Your task to perform on an android device: delete location history Image 0: 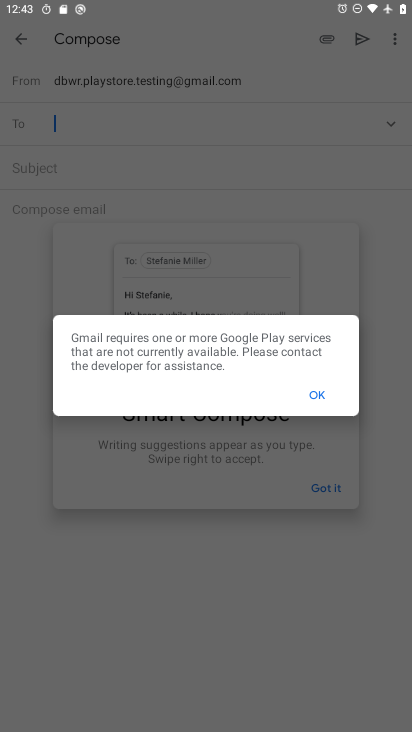
Step 0: press home button
Your task to perform on an android device: delete location history Image 1: 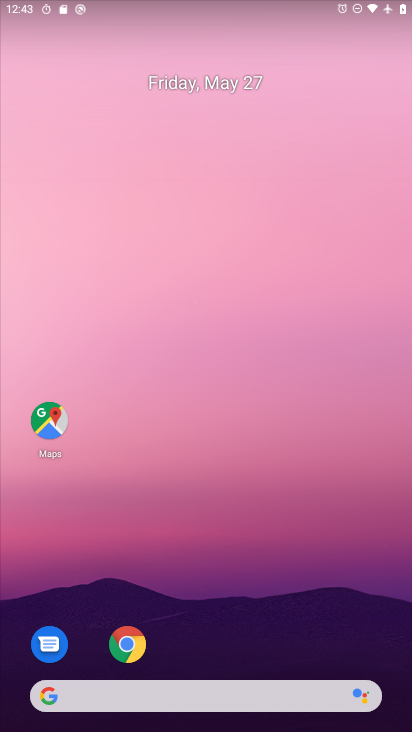
Step 1: drag from (208, 624) to (189, 207)
Your task to perform on an android device: delete location history Image 2: 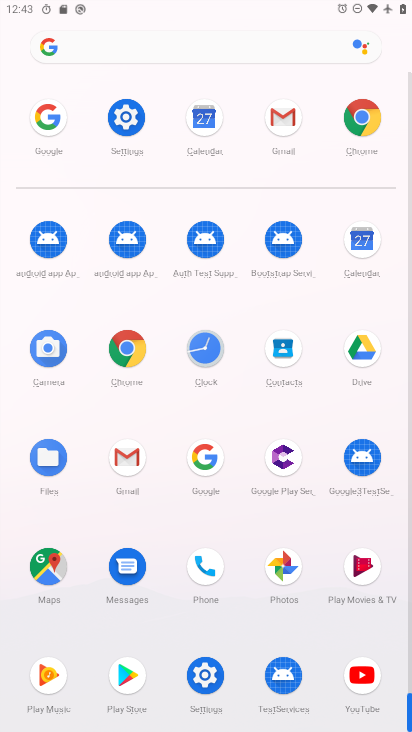
Step 2: drag from (244, 559) to (237, 431)
Your task to perform on an android device: delete location history Image 3: 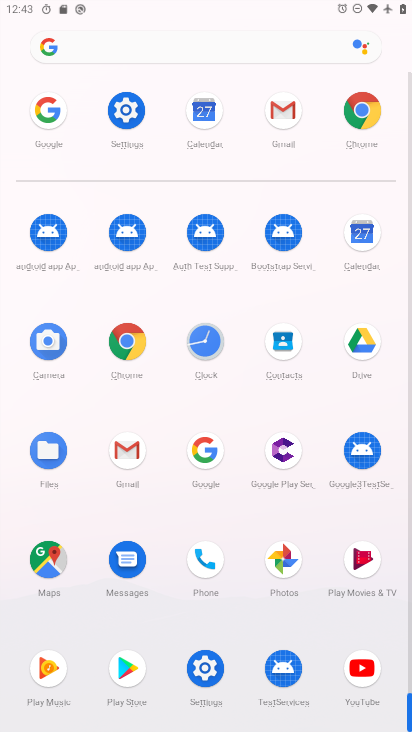
Step 3: click (40, 541)
Your task to perform on an android device: delete location history Image 4: 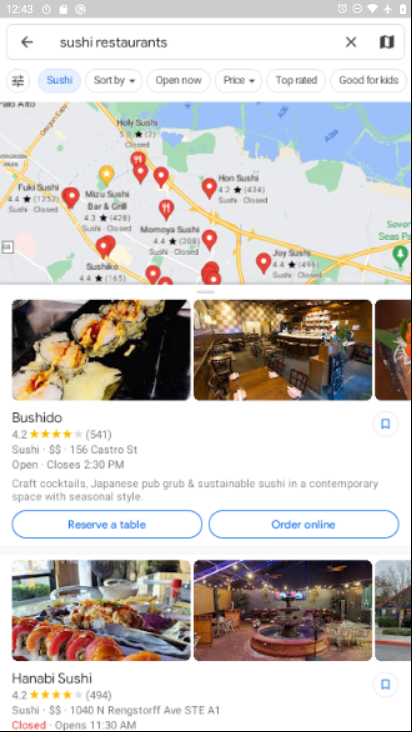
Step 4: click (24, 46)
Your task to perform on an android device: delete location history Image 5: 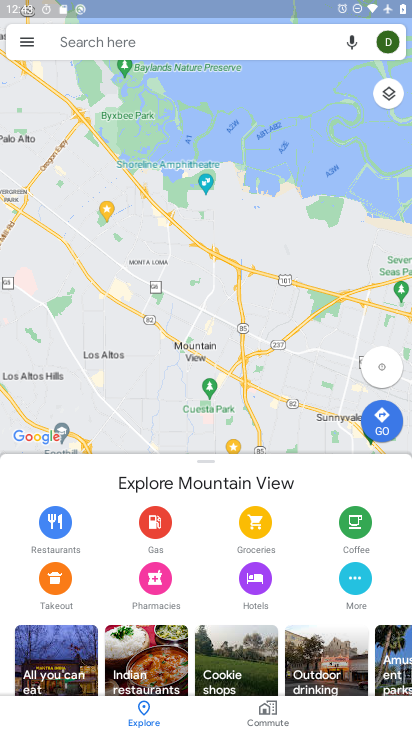
Step 5: click (29, 42)
Your task to perform on an android device: delete location history Image 6: 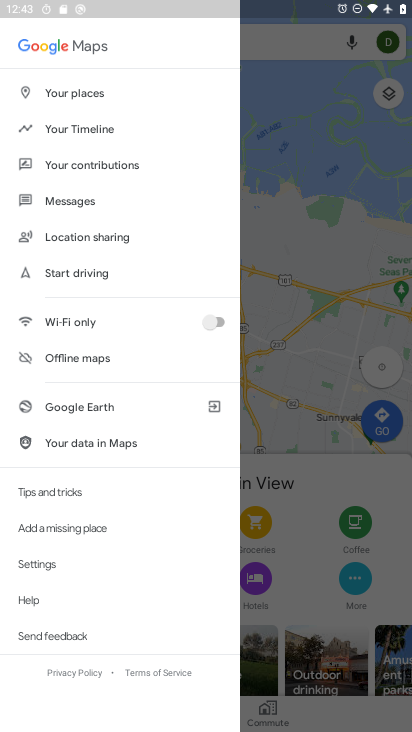
Step 6: click (105, 132)
Your task to perform on an android device: delete location history Image 7: 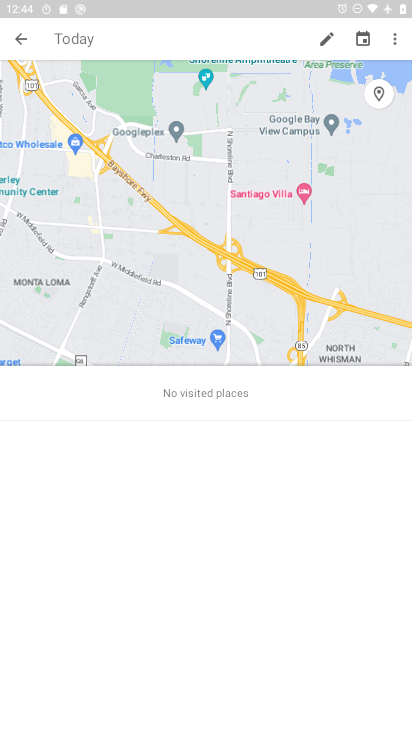
Step 7: click (387, 38)
Your task to perform on an android device: delete location history Image 8: 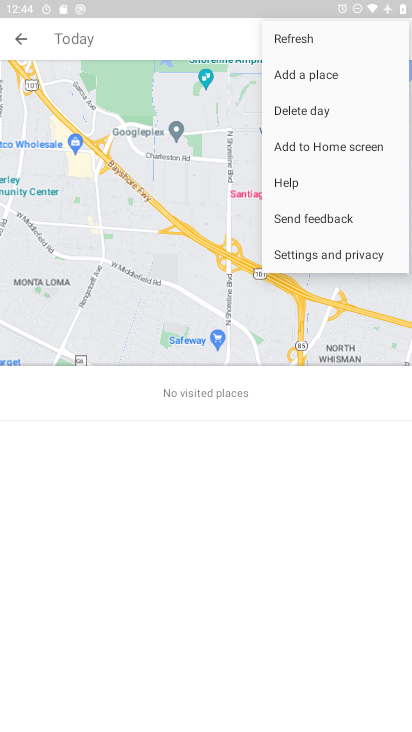
Step 8: click (348, 249)
Your task to perform on an android device: delete location history Image 9: 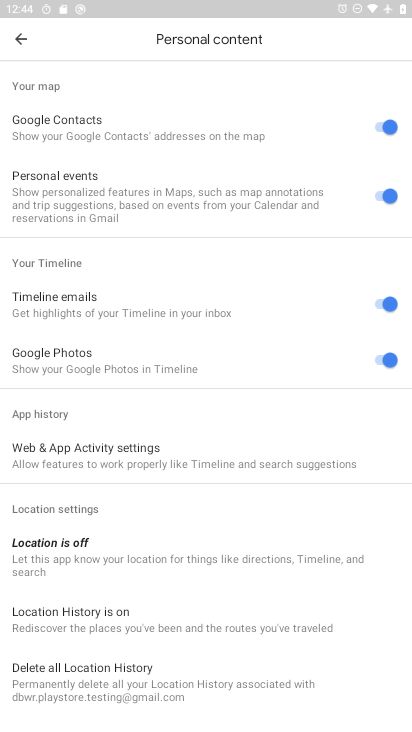
Step 9: drag from (175, 609) to (189, 396)
Your task to perform on an android device: delete location history Image 10: 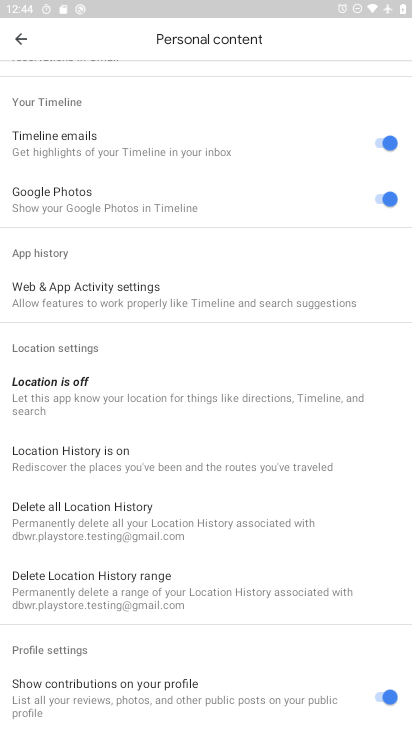
Step 10: click (205, 528)
Your task to perform on an android device: delete location history Image 11: 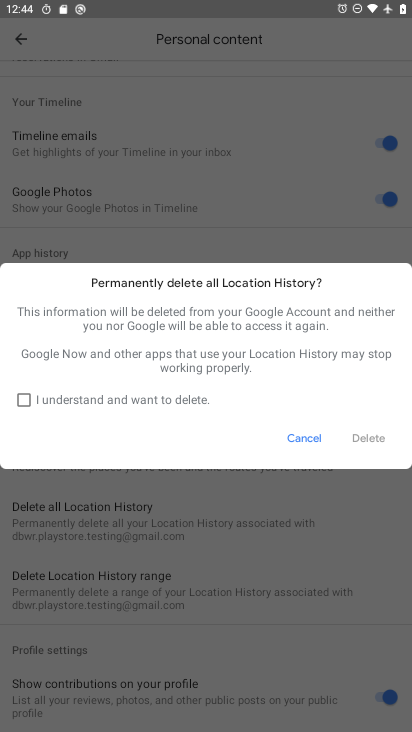
Step 11: click (162, 399)
Your task to perform on an android device: delete location history Image 12: 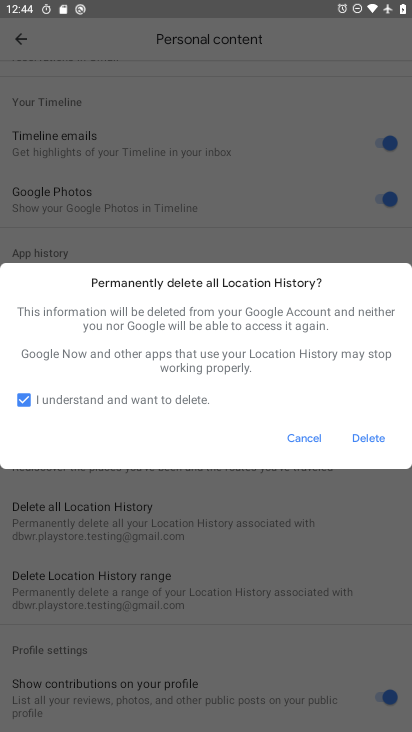
Step 12: click (364, 440)
Your task to perform on an android device: delete location history Image 13: 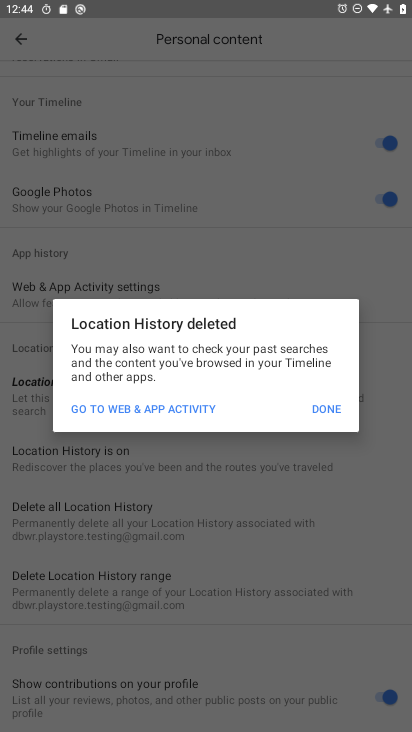
Step 13: click (320, 404)
Your task to perform on an android device: delete location history Image 14: 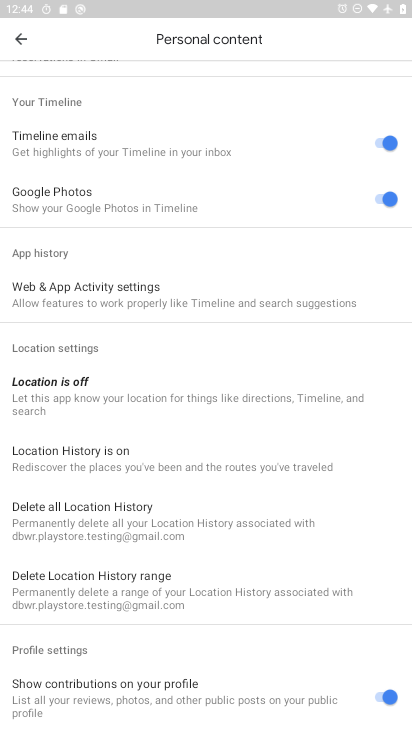
Step 14: task complete